Your task to perform on an android device: turn off javascript in the chrome app Image 0: 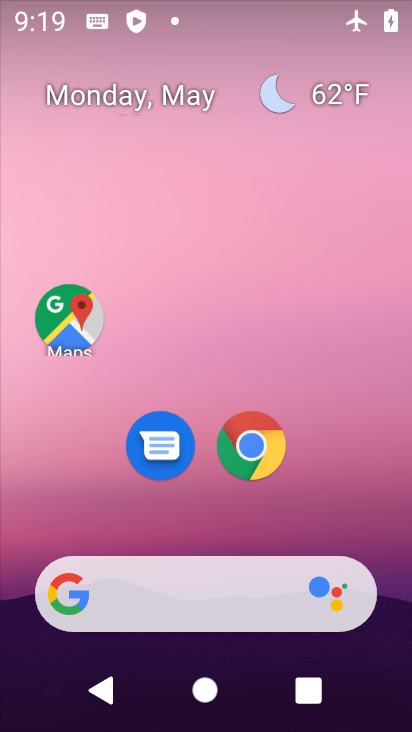
Step 0: drag from (397, 609) to (238, 39)
Your task to perform on an android device: turn off javascript in the chrome app Image 1: 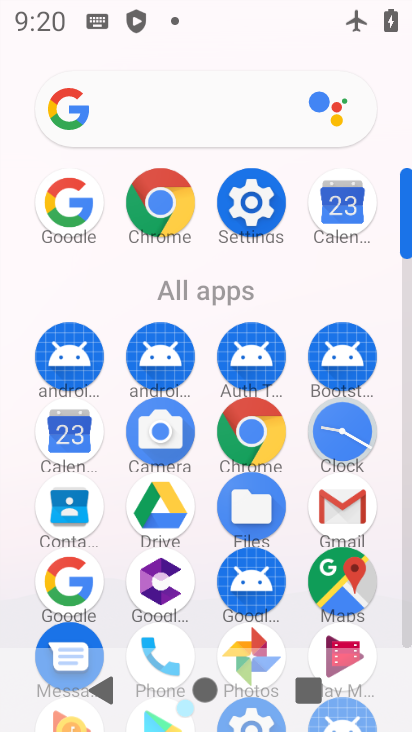
Step 1: click (249, 446)
Your task to perform on an android device: turn off javascript in the chrome app Image 2: 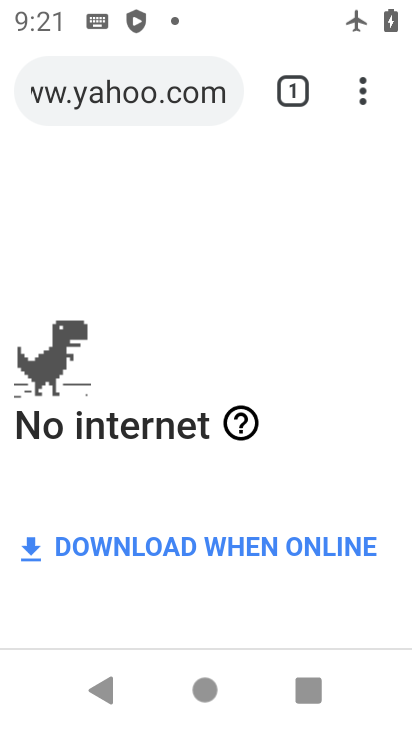
Step 2: click (363, 81)
Your task to perform on an android device: turn off javascript in the chrome app Image 3: 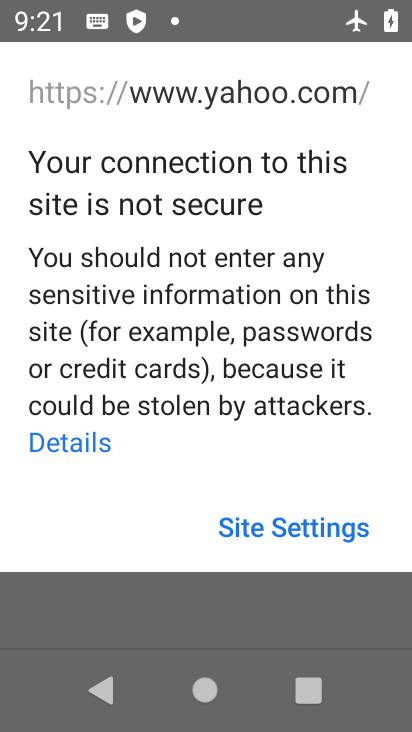
Step 3: press back button
Your task to perform on an android device: turn off javascript in the chrome app Image 4: 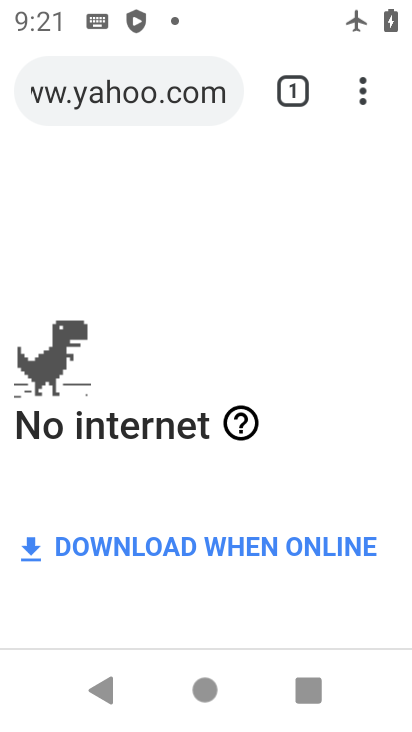
Step 4: press back button
Your task to perform on an android device: turn off javascript in the chrome app Image 5: 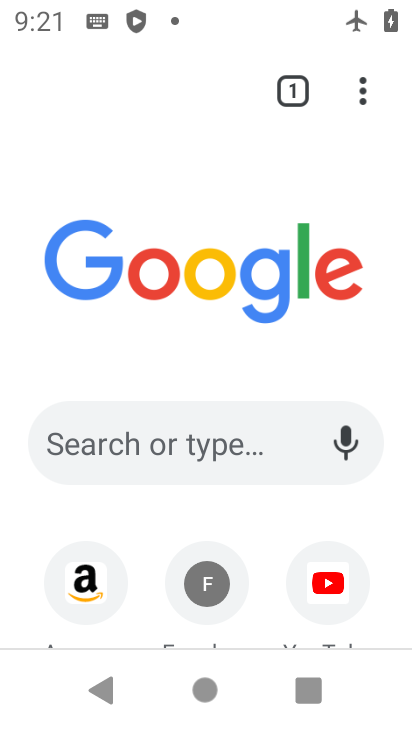
Step 5: click (361, 79)
Your task to perform on an android device: turn off javascript in the chrome app Image 6: 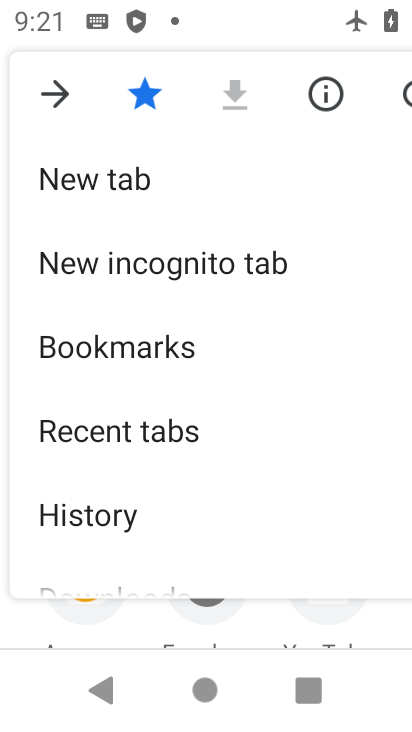
Step 6: drag from (183, 548) to (212, 121)
Your task to perform on an android device: turn off javascript in the chrome app Image 7: 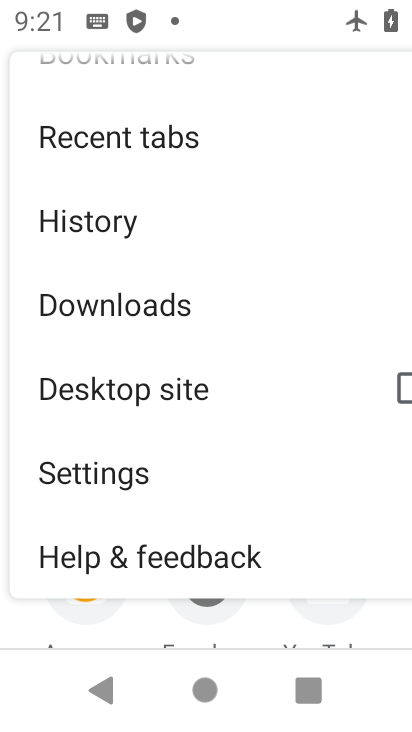
Step 7: click (181, 457)
Your task to perform on an android device: turn off javascript in the chrome app Image 8: 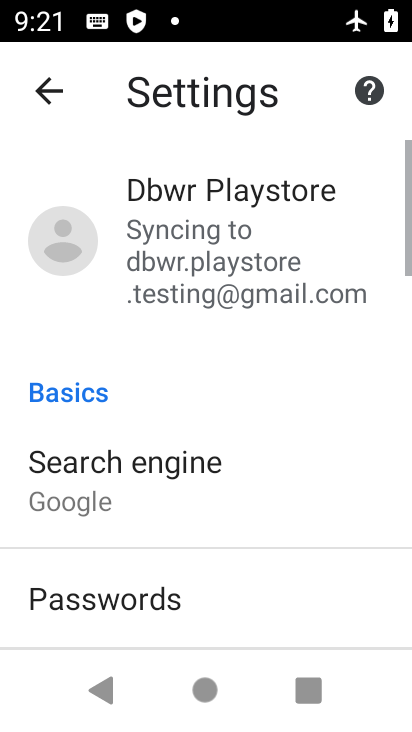
Step 8: drag from (154, 586) to (233, 101)
Your task to perform on an android device: turn off javascript in the chrome app Image 9: 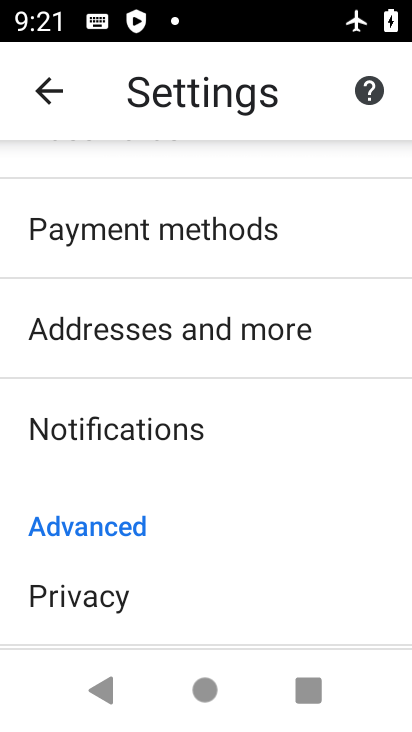
Step 9: drag from (193, 581) to (256, 133)
Your task to perform on an android device: turn off javascript in the chrome app Image 10: 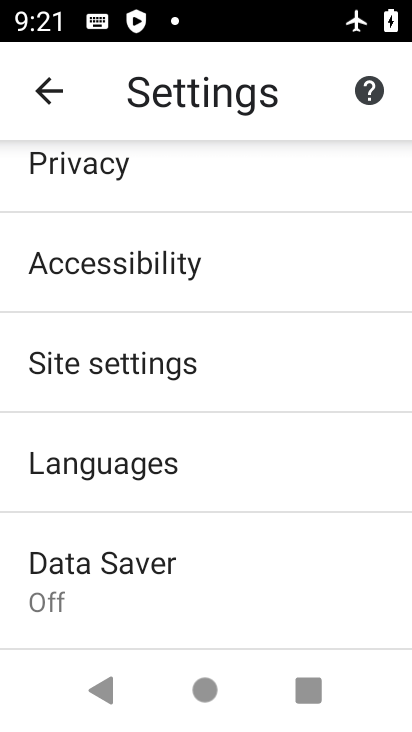
Step 10: click (191, 373)
Your task to perform on an android device: turn off javascript in the chrome app Image 11: 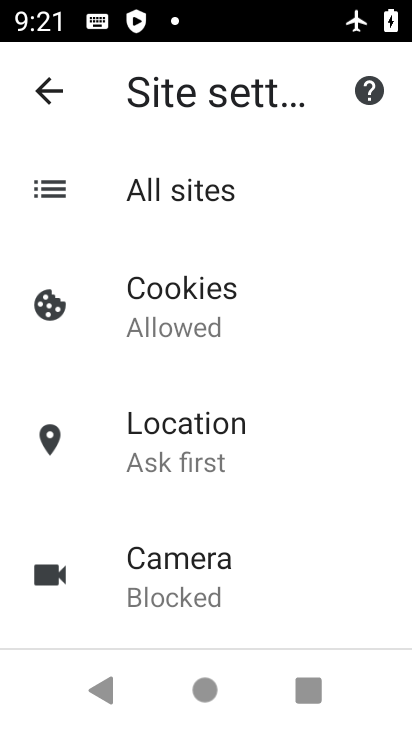
Step 11: drag from (133, 594) to (197, 121)
Your task to perform on an android device: turn off javascript in the chrome app Image 12: 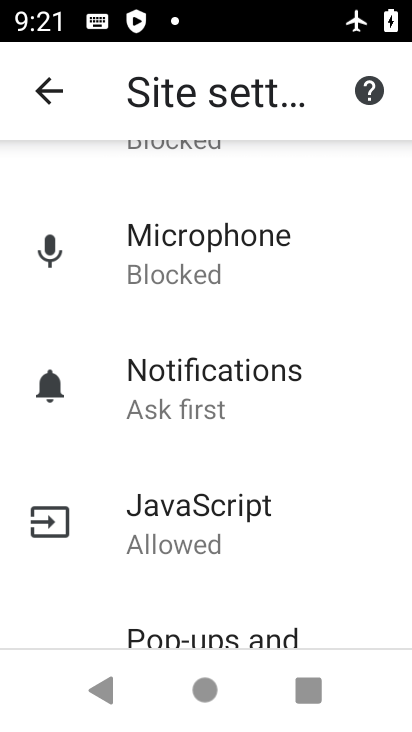
Step 12: click (241, 526)
Your task to perform on an android device: turn off javascript in the chrome app Image 13: 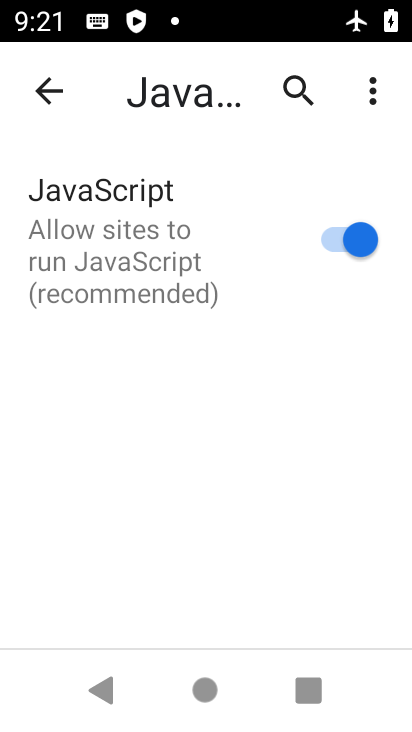
Step 13: click (383, 235)
Your task to perform on an android device: turn off javascript in the chrome app Image 14: 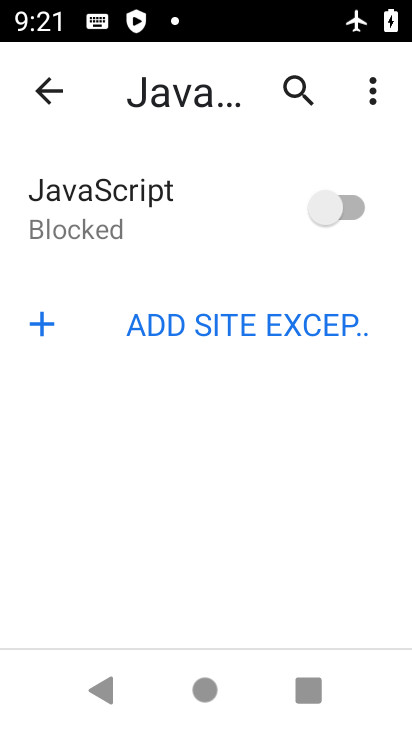
Step 14: task complete